Your task to perform on an android device: Show the shopping cart on costco. Image 0: 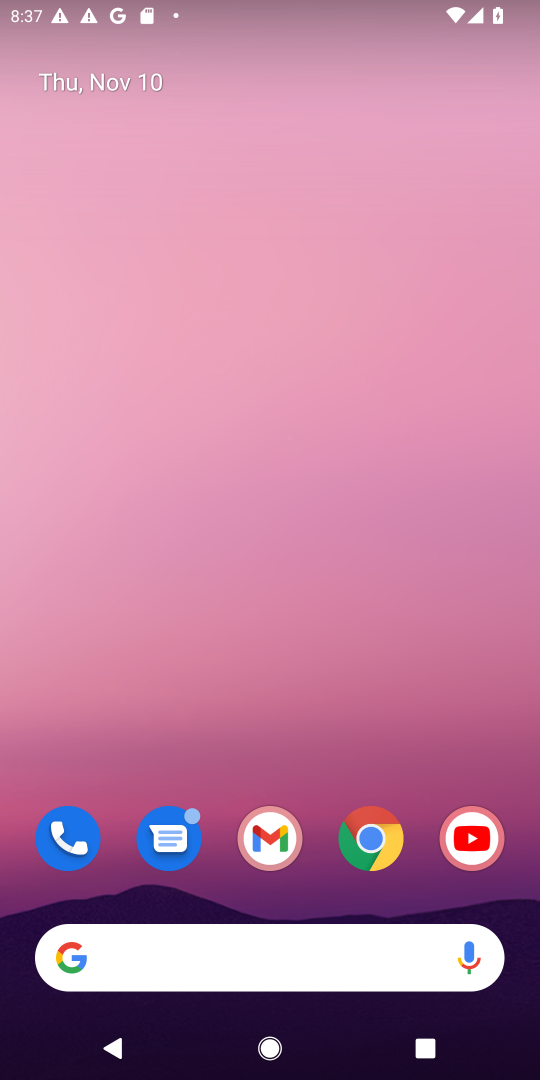
Step 0: drag from (333, 902) to (286, 169)
Your task to perform on an android device: Show the shopping cart on costco. Image 1: 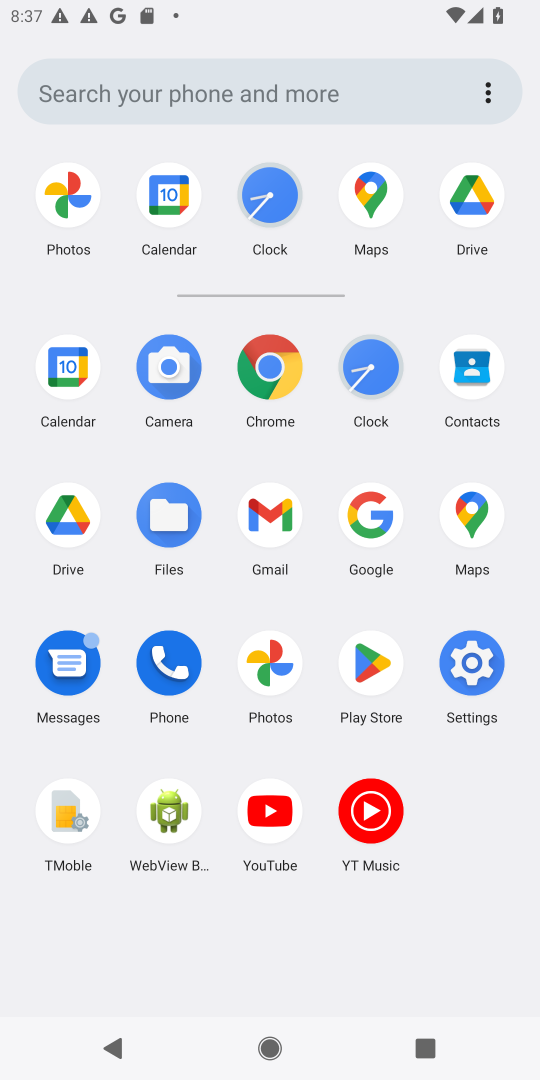
Step 1: click (270, 374)
Your task to perform on an android device: Show the shopping cart on costco. Image 2: 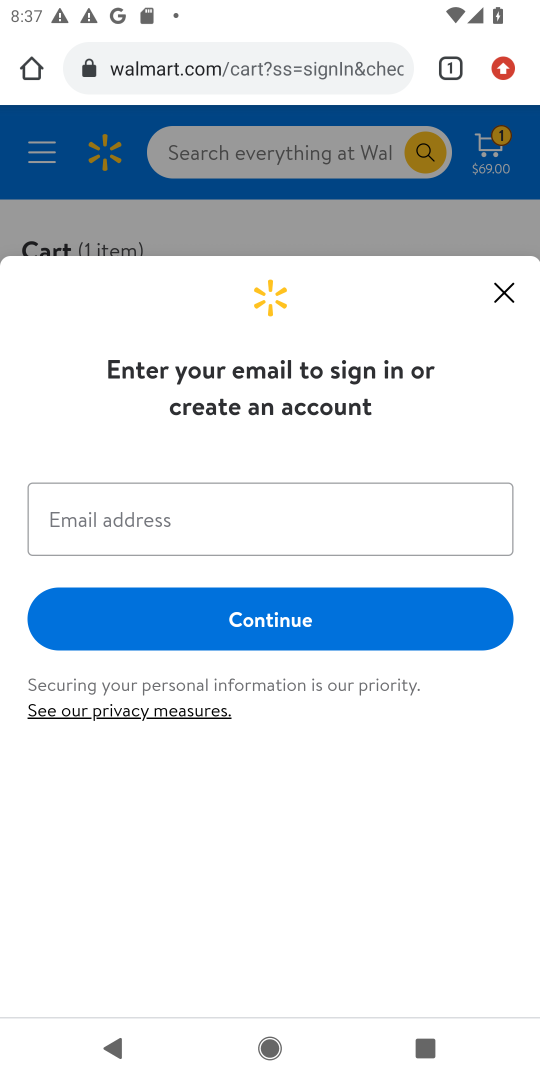
Step 2: click (334, 64)
Your task to perform on an android device: Show the shopping cart on costco. Image 3: 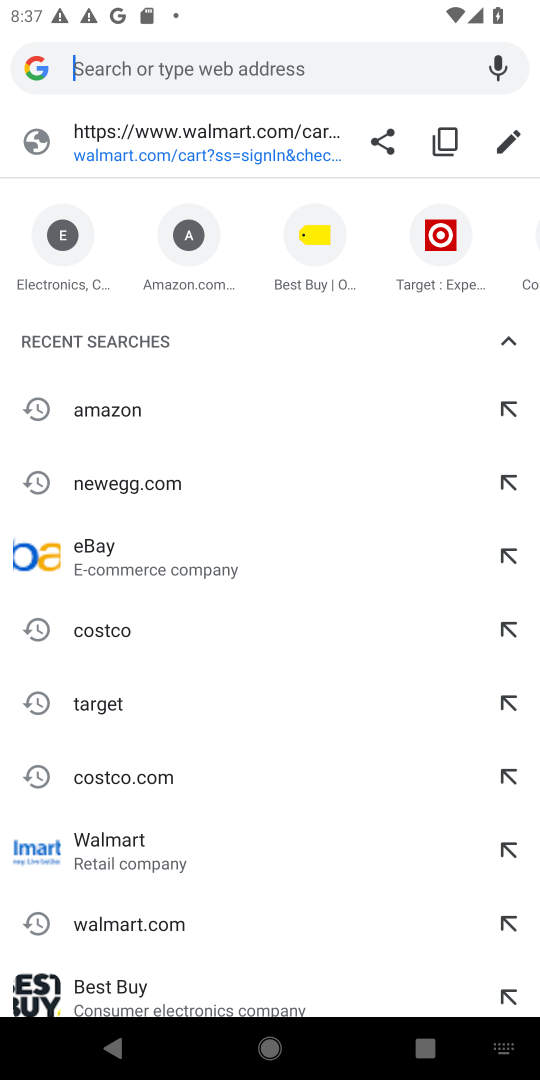
Step 3: type "costco.com"
Your task to perform on an android device: Show the shopping cart on costco. Image 4: 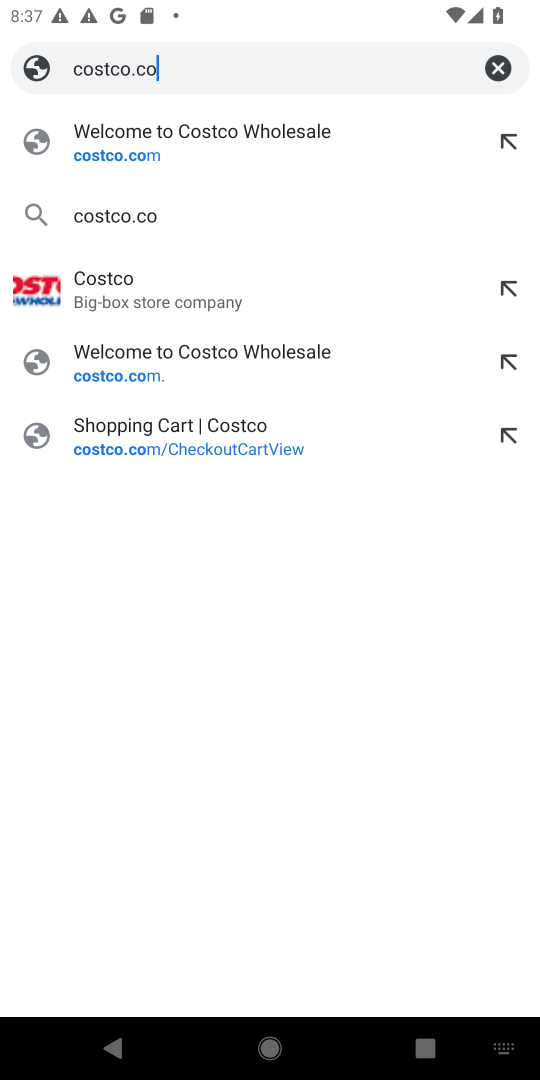
Step 4: press enter
Your task to perform on an android device: Show the shopping cart on costco. Image 5: 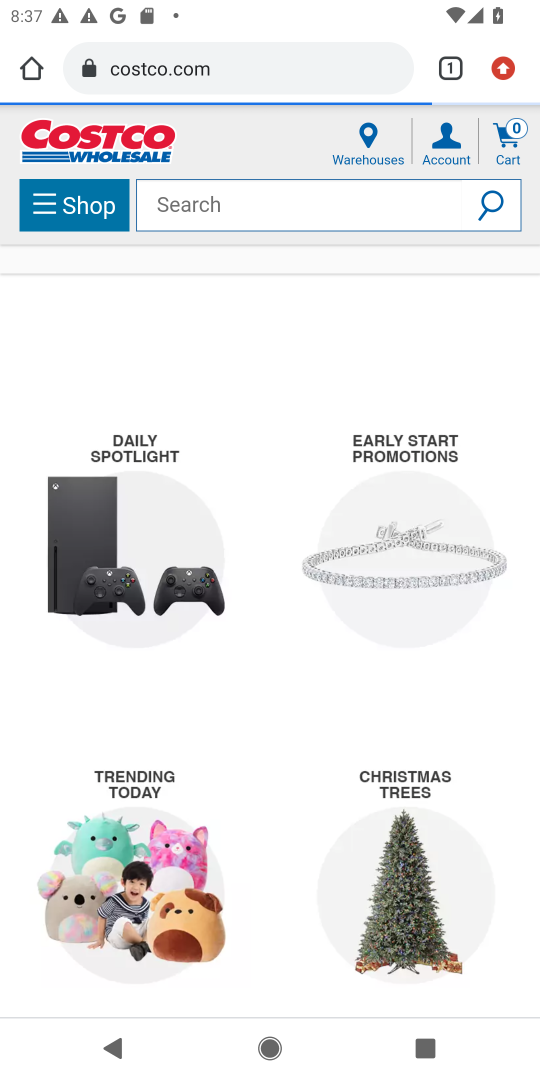
Step 5: click (494, 137)
Your task to perform on an android device: Show the shopping cart on costco. Image 6: 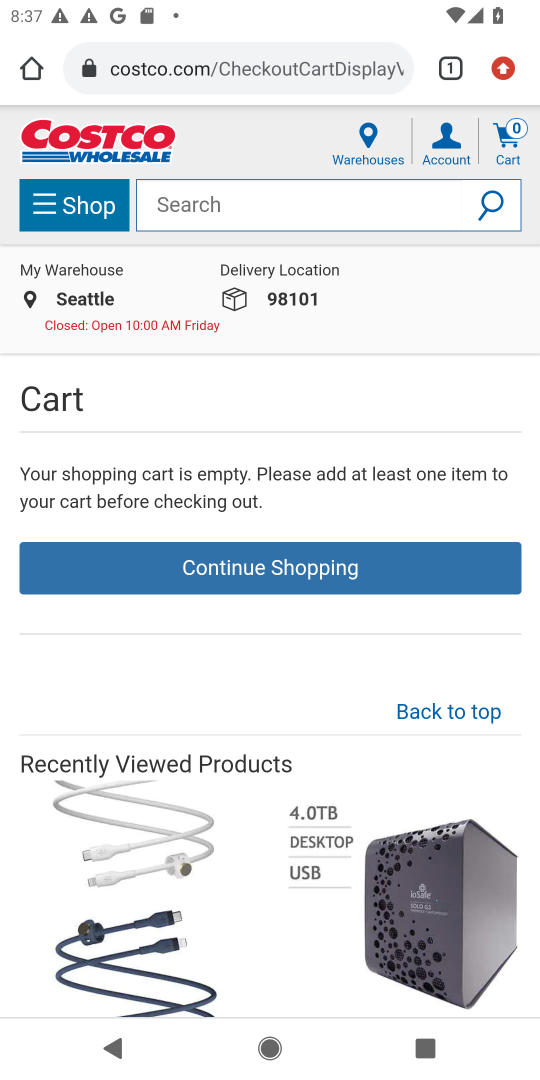
Step 6: task complete